Your task to perform on an android device: Search for seafood restaurants on Google Maps Image 0: 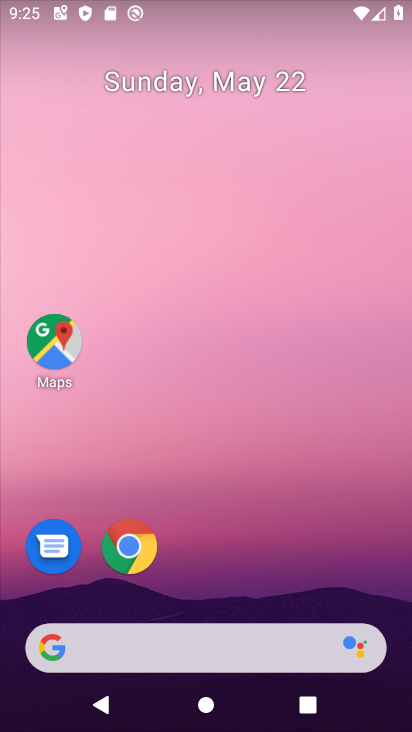
Step 0: drag from (218, 601) to (296, 40)
Your task to perform on an android device: Search for seafood restaurants on Google Maps Image 1: 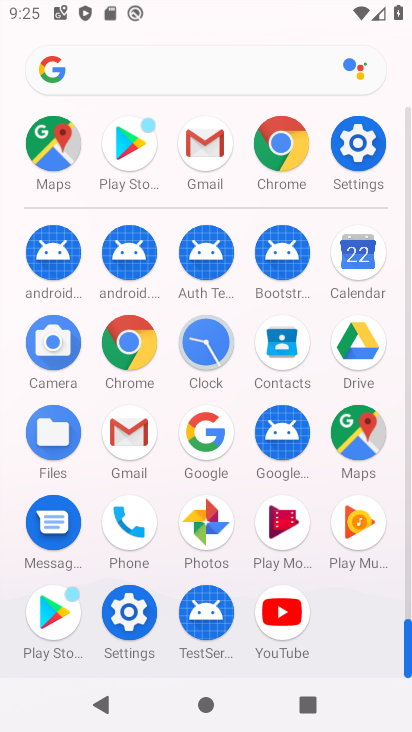
Step 1: click (202, 438)
Your task to perform on an android device: Search for seafood restaurants on Google Maps Image 2: 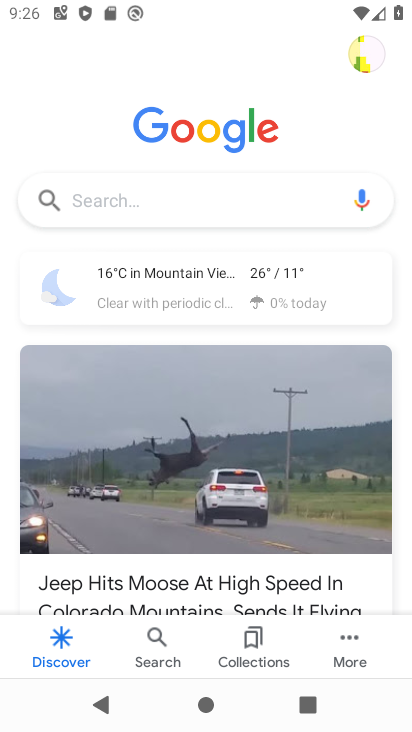
Step 2: press home button
Your task to perform on an android device: Search for seafood restaurants on Google Maps Image 3: 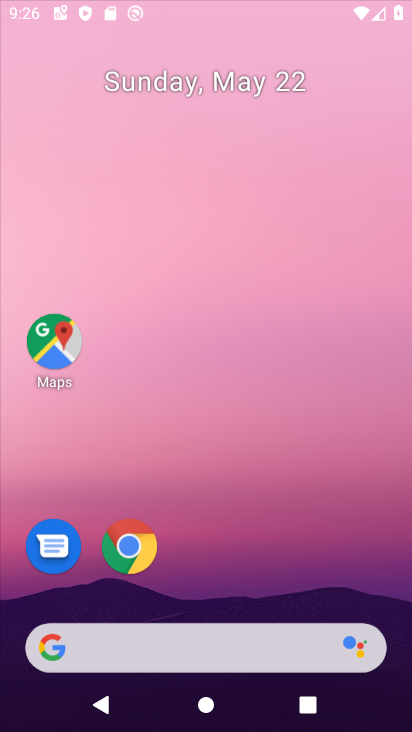
Step 3: drag from (181, 603) to (336, 66)
Your task to perform on an android device: Search for seafood restaurants on Google Maps Image 4: 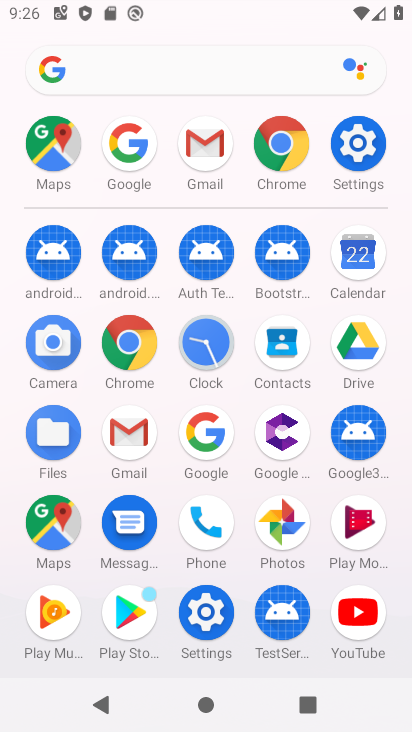
Step 4: click (39, 528)
Your task to perform on an android device: Search for seafood restaurants on Google Maps Image 5: 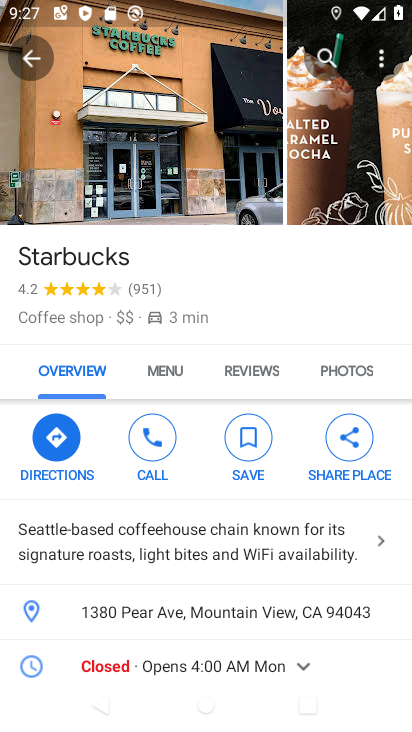
Step 5: task complete